Your task to perform on an android device: toggle show notifications on the lock screen Image 0: 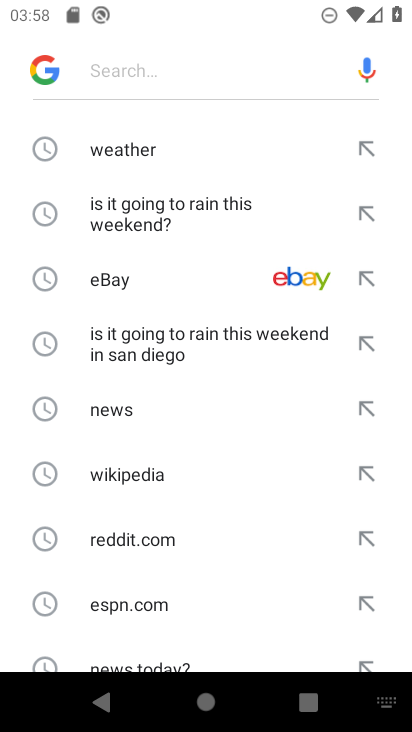
Step 0: press home button
Your task to perform on an android device: toggle show notifications on the lock screen Image 1: 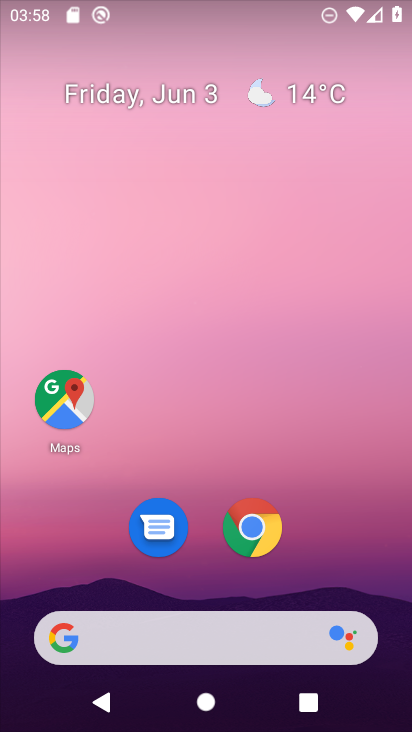
Step 1: drag from (354, 549) to (285, 73)
Your task to perform on an android device: toggle show notifications on the lock screen Image 2: 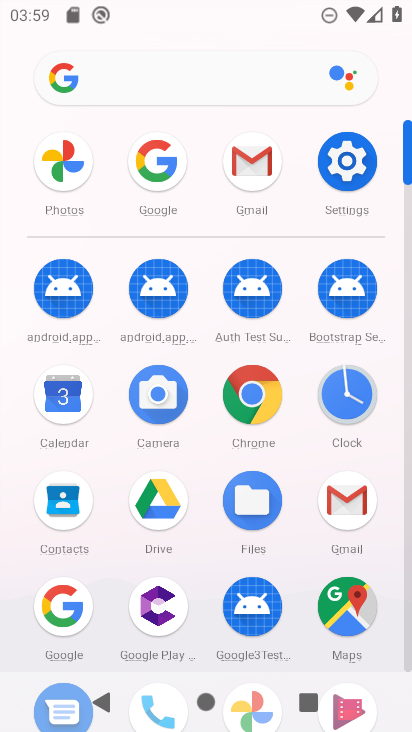
Step 2: click (346, 162)
Your task to perform on an android device: toggle show notifications on the lock screen Image 3: 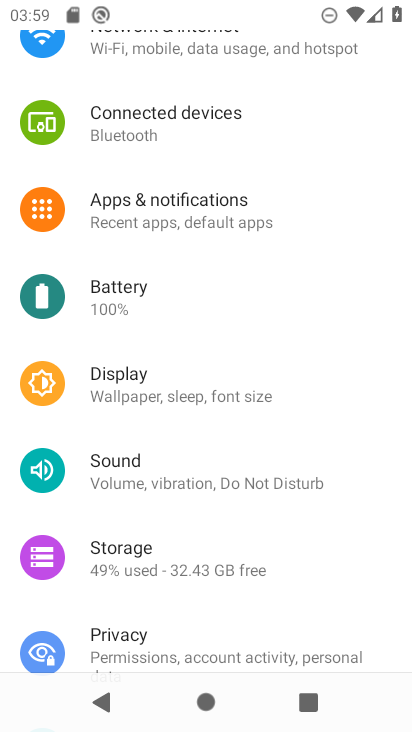
Step 3: click (222, 217)
Your task to perform on an android device: toggle show notifications on the lock screen Image 4: 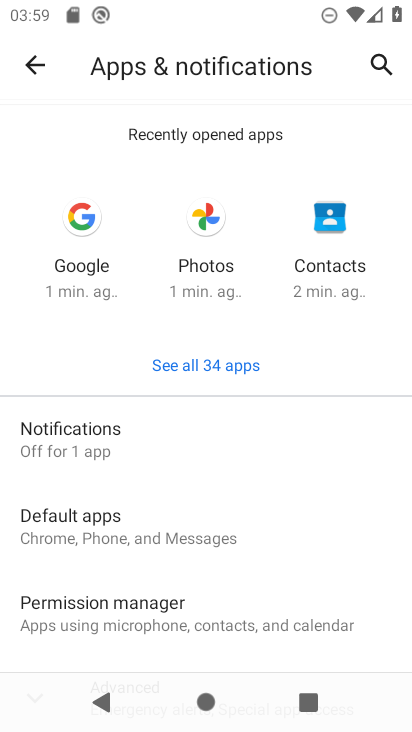
Step 4: click (95, 433)
Your task to perform on an android device: toggle show notifications on the lock screen Image 5: 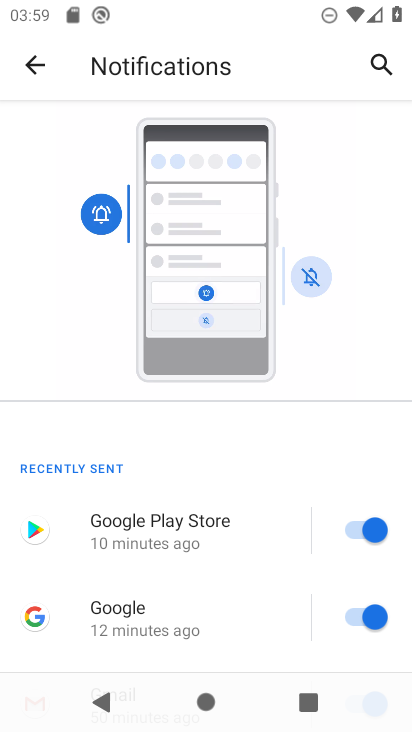
Step 5: drag from (208, 591) to (321, 404)
Your task to perform on an android device: toggle show notifications on the lock screen Image 6: 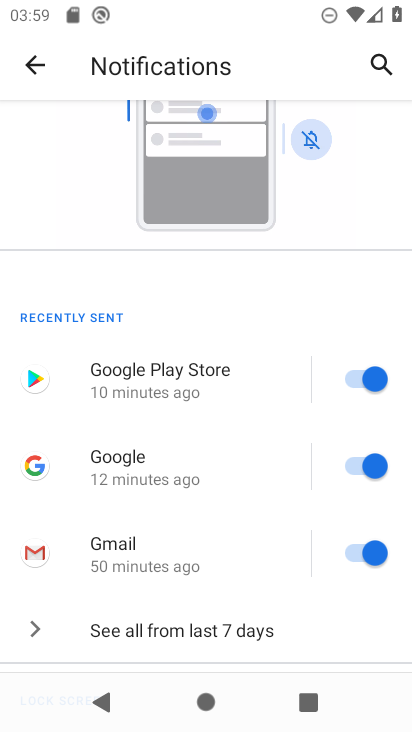
Step 6: drag from (174, 515) to (271, 348)
Your task to perform on an android device: toggle show notifications on the lock screen Image 7: 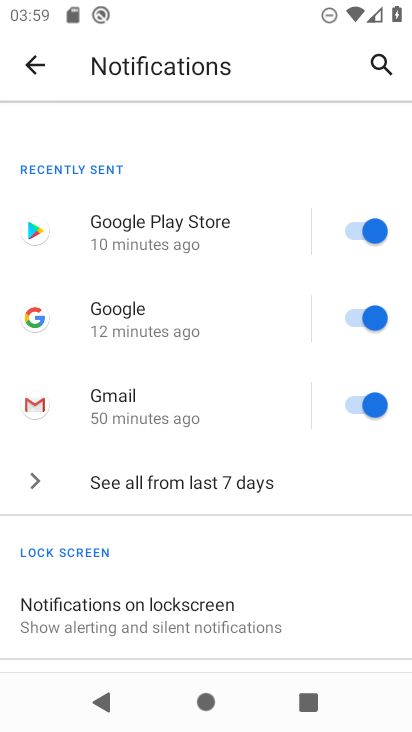
Step 7: click (168, 598)
Your task to perform on an android device: toggle show notifications on the lock screen Image 8: 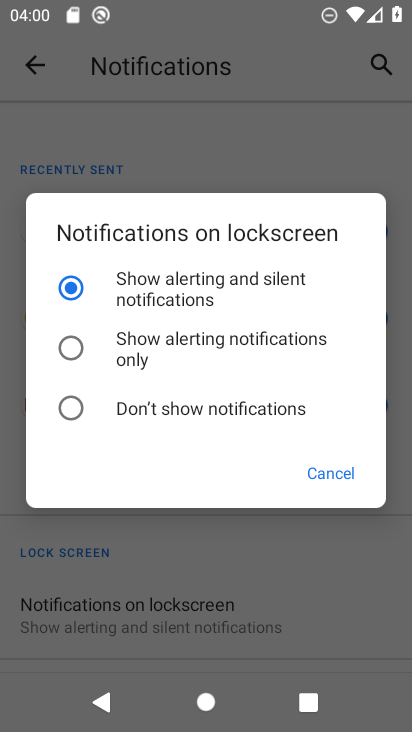
Step 8: click (72, 409)
Your task to perform on an android device: toggle show notifications on the lock screen Image 9: 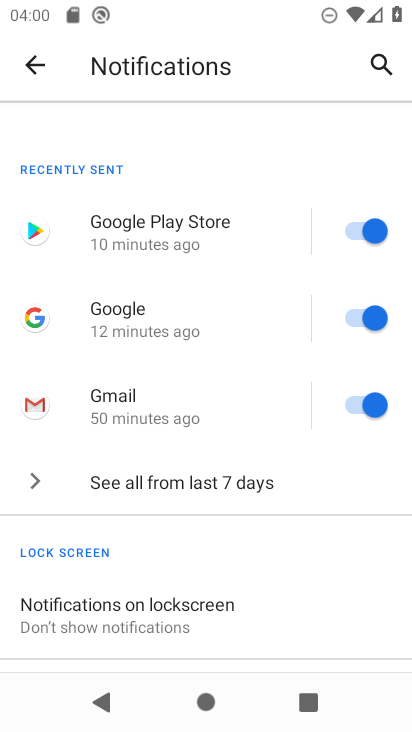
Step 9: task complete